Your task to perform on an android device: Go to internet settings Image 0: 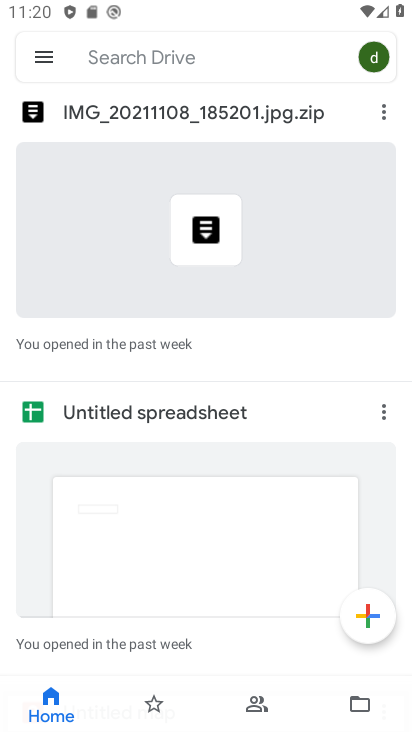
Step 0: press home button
Your task to perform on an android device: Go to internet settings Image 1: 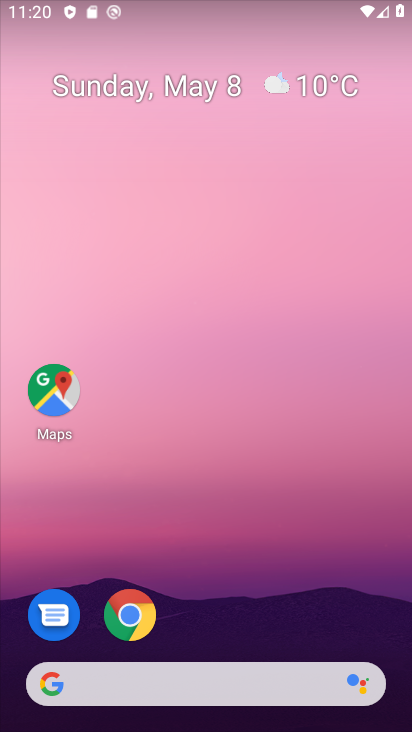
Step 1: drag from (322, 718) to (321, 218)
Your task to perform on an android device: Go to internet settings Image 2: 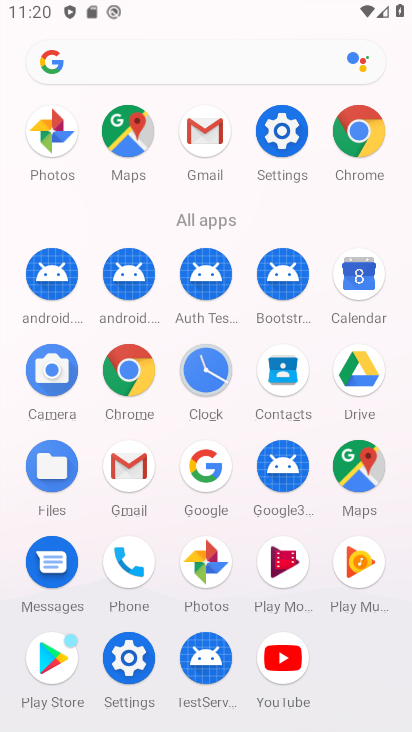
Step 2: click (298, 139)
Your task to perform on an android device: Go to internet settings Image 3: 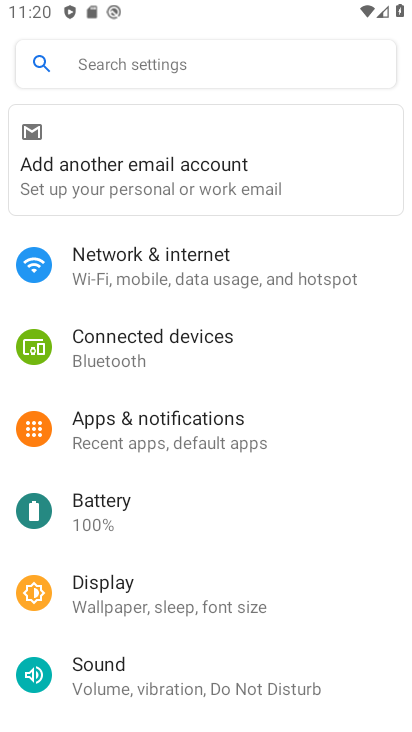
Step 3: click (141, 256)
Your task to perform on an android device: Go to internet settings Image 4: 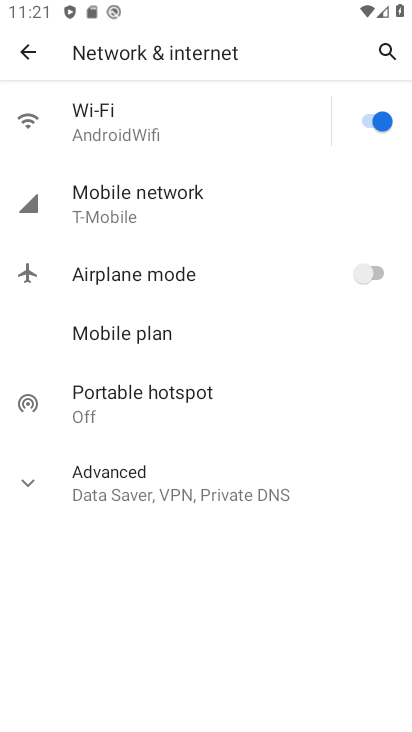
Step 4: click (144, 199)
Your task to perform on an android device: Go to internet settings Image 5: 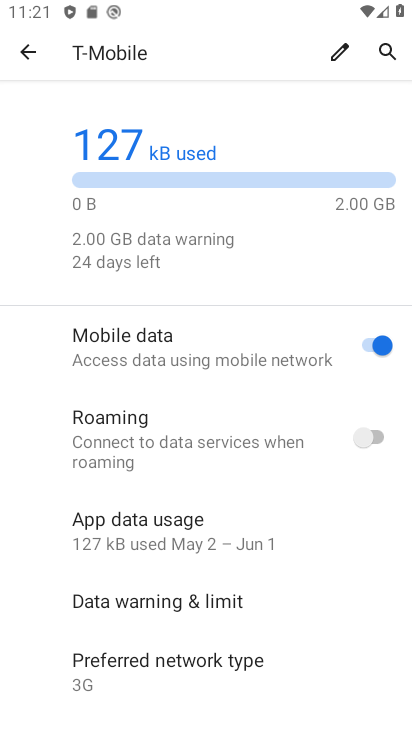
Step 5: task complete